Your task to perform on an android device: turn on priority inbox in the gmail app Image 0: 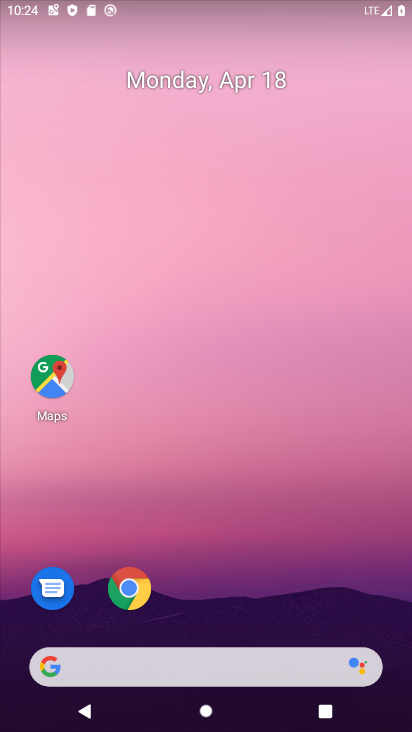
Step 0: drag from (398, 660) to (337, 59)
Your task to perform on an android device: turn on priority inbox in the gmail app Image 1: 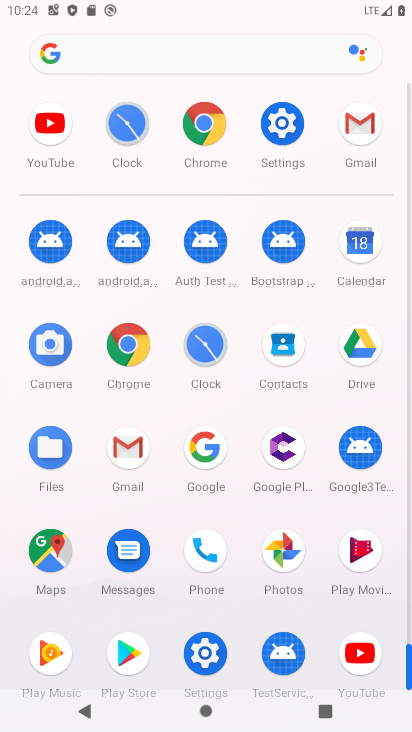
Step 1: click (126, 445)
Your task to perform on an android device: turn on priority inbox in the gmail app Image 2: 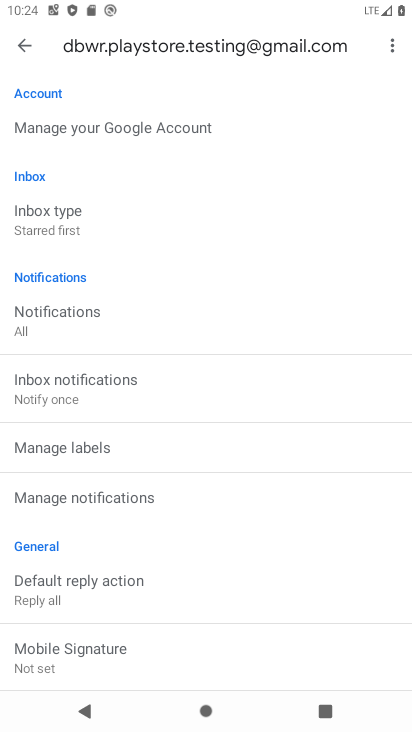
Step 2: click (43, 214)
Your task to perform on an android device: turn on priority inbox in the gmail app Image 3: 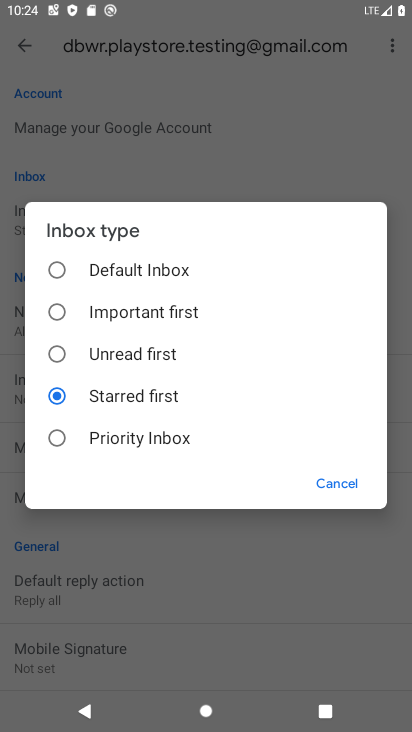
Step 3: click (57, 437)
Your task to perform on an android device: turn on priority inbox in the gmail app Image 4: 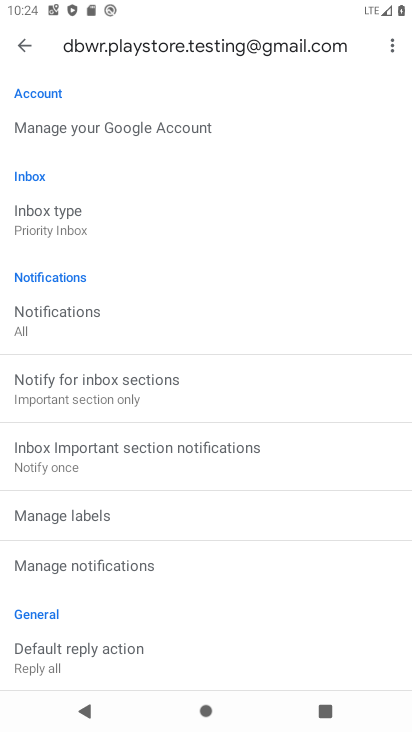
Step 4: task complete